Your task to perform on an android device: turn off sleep mode Image 0: 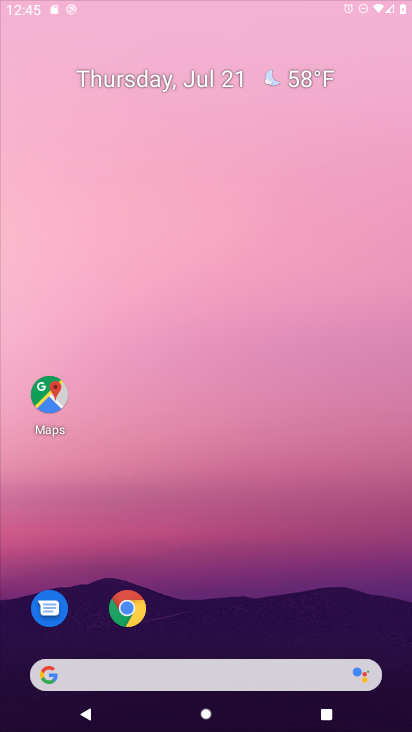
Step 0: press home button
Your task to perform on an android device: turn off sleep mode Image 1: 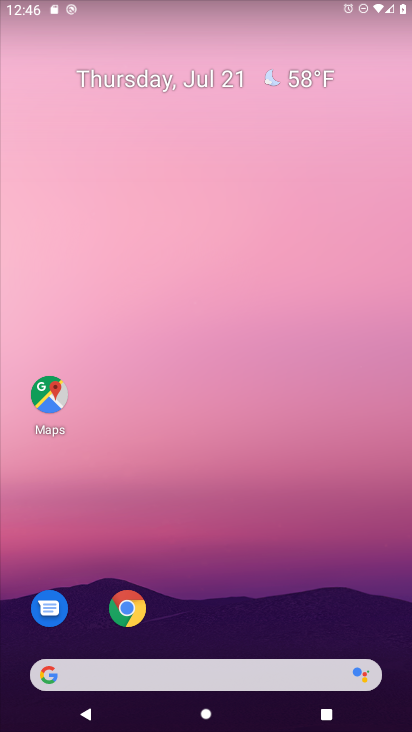
Step 1: drag from (236, 636) to (110, 244)
Your task to perform on an android device: turn off sleep mode Image 2: 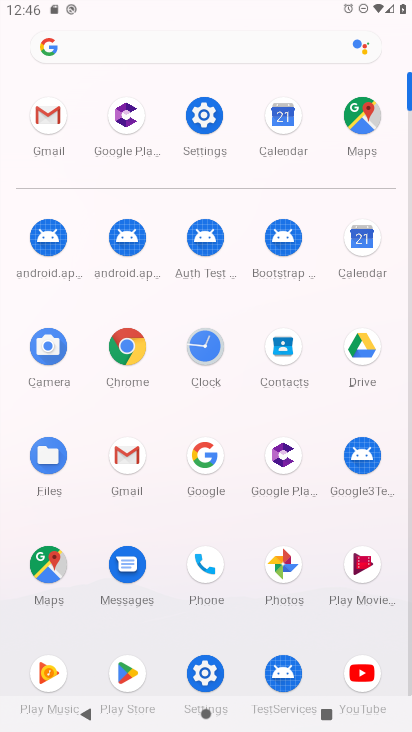
Step 2: click (201, 119)
Your task to perform on an android device: turn off sleep mode Image 3: 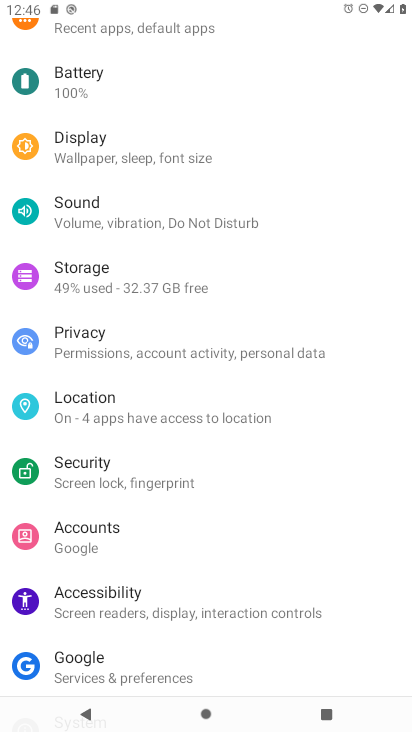
Step 3: click (121, 148)
Your task to perform on an android device: turn off sleep mode Image 4: 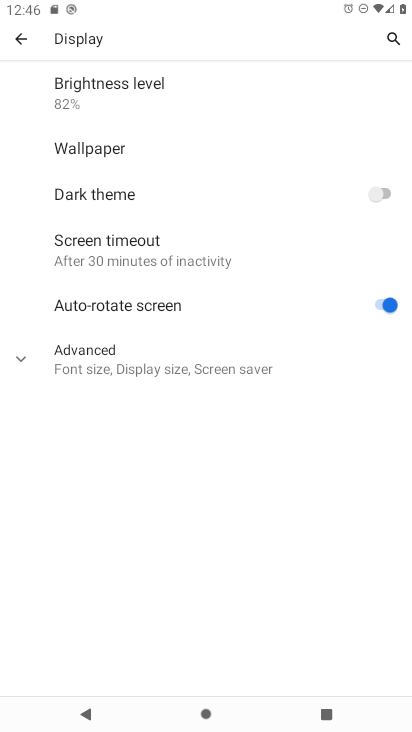
Step 4: task complete